Your task to perform on an android device: turn on showing notifications on the lock screen Image 0: 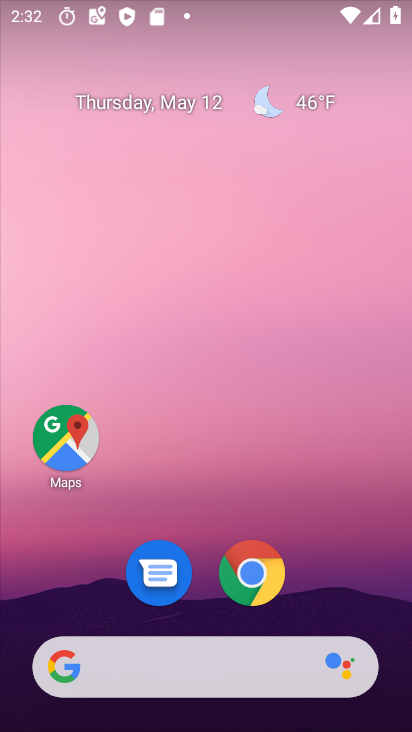
Step 0: drag from (201, 624) to (218, 191)
Your task to perform on an android device: turn on showing notifications on the lock screen Image 1: 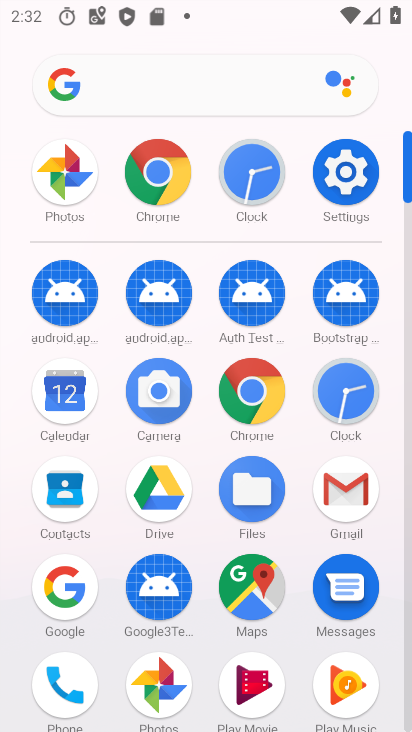
Step 1: click (349, 148)
Your task to perform on an android device: turn on showing notifications on the lock screen Image 2: 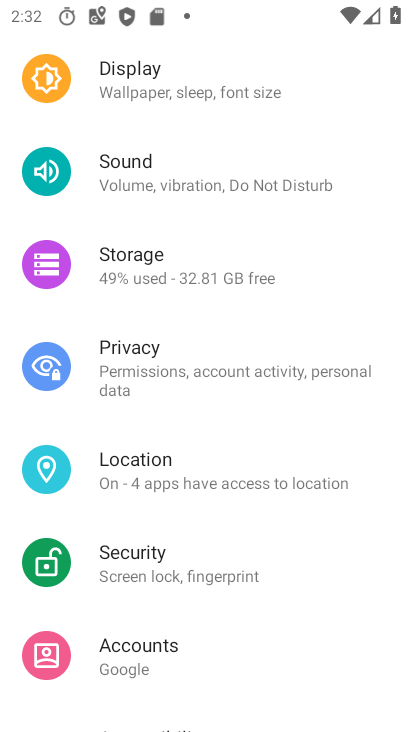
Step 2: drag from (224, 143) to (223, 593)
Your task to perform on an android device: turn on showing notifications on the lock screen Image 3: 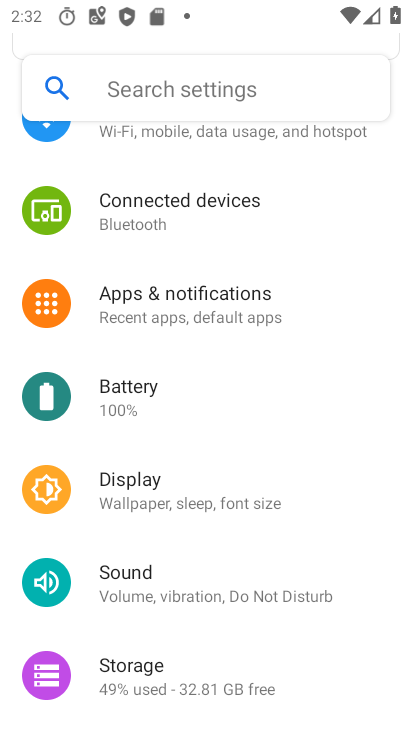
Step 3: click (191, 305)
Your task to perform on an android device: turn on showing notifications on the lock screen Image 4: 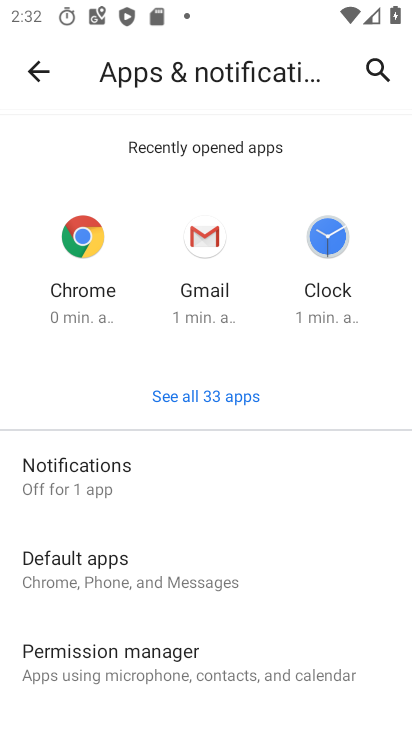
Step 4: click (140, 498)
Your task to perform on an android device: turn on showing notifications on the lock screen Image 5: 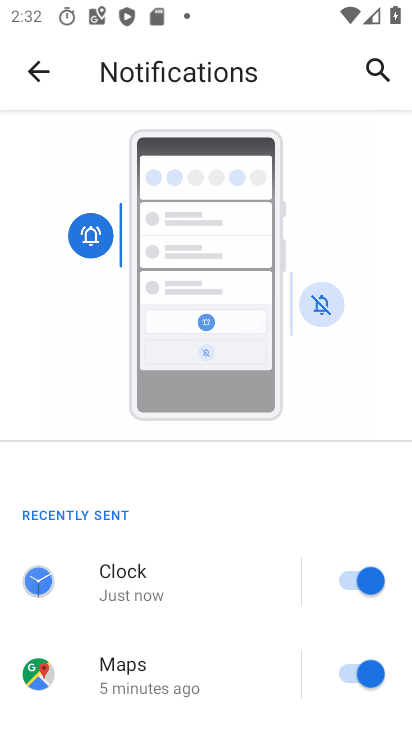
Step 5: drag from (236, 637) to (287, 7)
Your task to perform on an android device: turn on showing notifications on the lock screen Image 6: 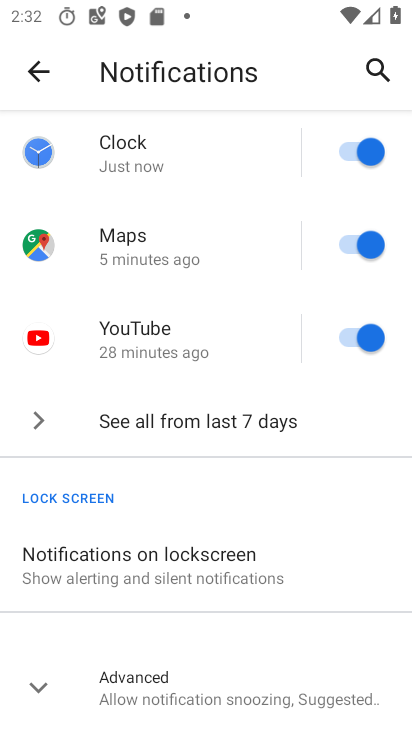
Step 6: click (163, 710)
Your task to perform on an android device: turn on showing notifications on the lock screen Image 7: 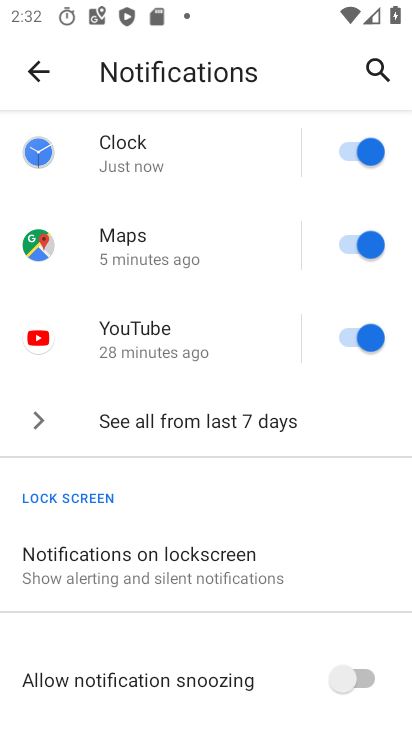
Step 7: drag from (143, 687) to (233, 264)
Your task to perform on an android device: turn on showing notifications on the lock screen Image 8: 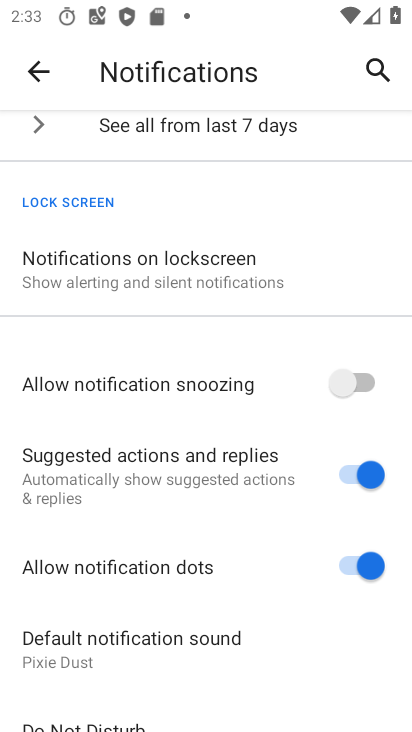
Step 8: click (235, 278)
Your task to perform on an android device: turn on showing notifications on the lock screen Image 9: 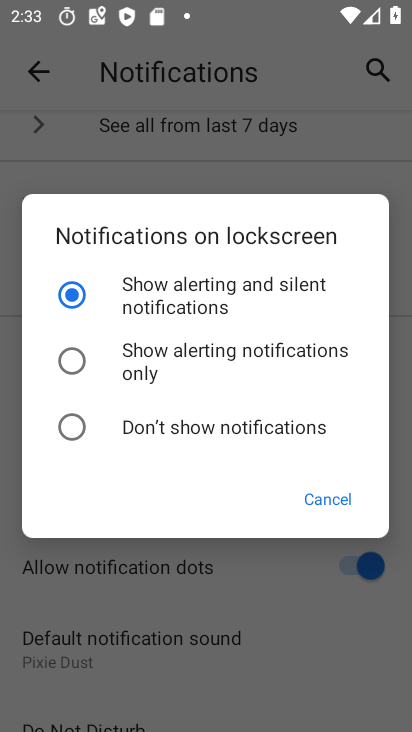
Step 9: task complete